Your task to perform on an android device: Open the map Image 0: 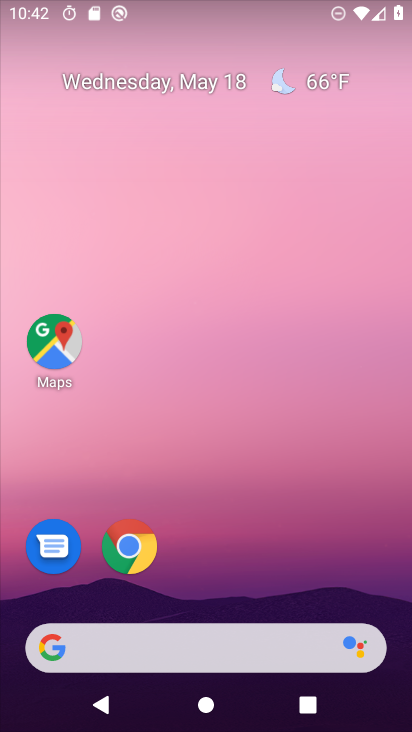
Step 0: click (50, 332)
Your task to perform on an android device: Open the map Image 1: 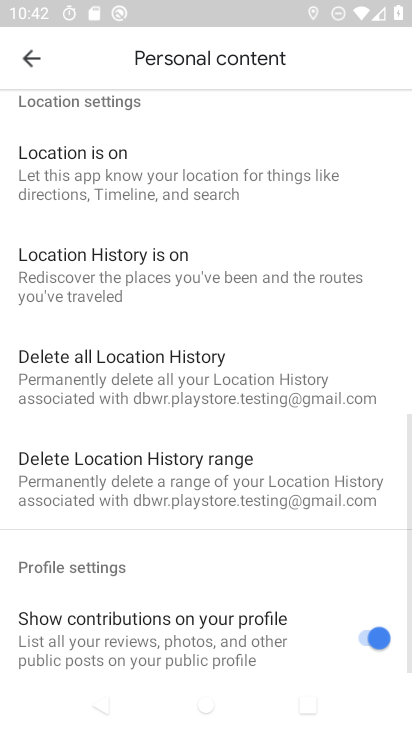
Step 1: task complete